Your task to perform on an android device: set the timer Image 0: 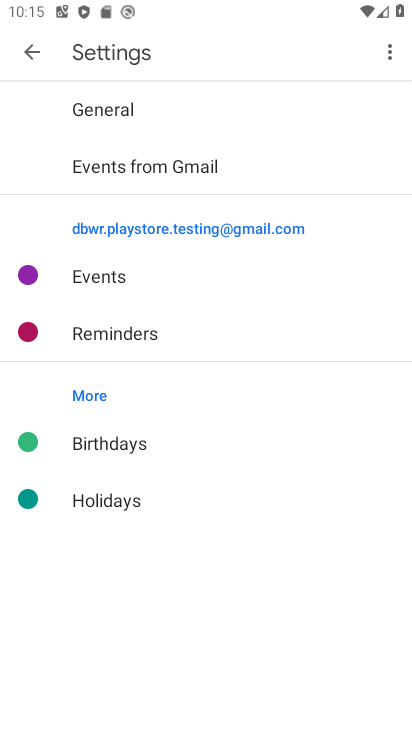
Step 0: drag from (242, 505) to (305, 179)
Your task to perform on an android device: set the timer Image 1: 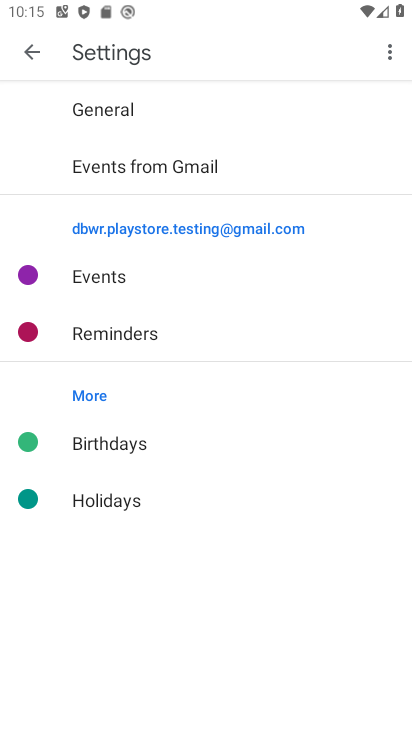
Step 1: drag from (184, 481) to (228, 186)
Your task to perform on an android device: set the timer Image 2: 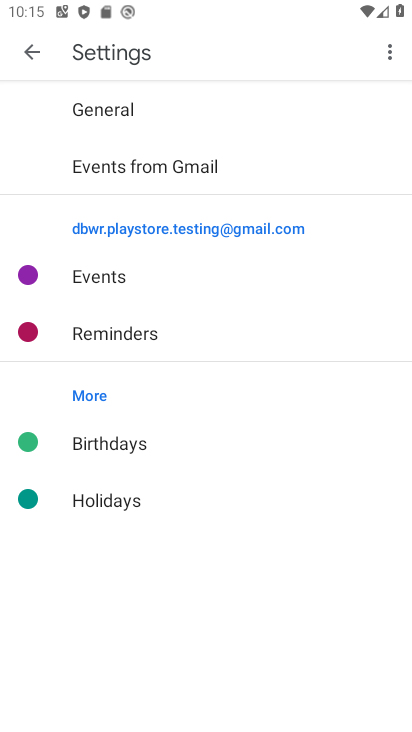
Step 2: press home button
Your task to perform on an android device: set the timer Image 3: 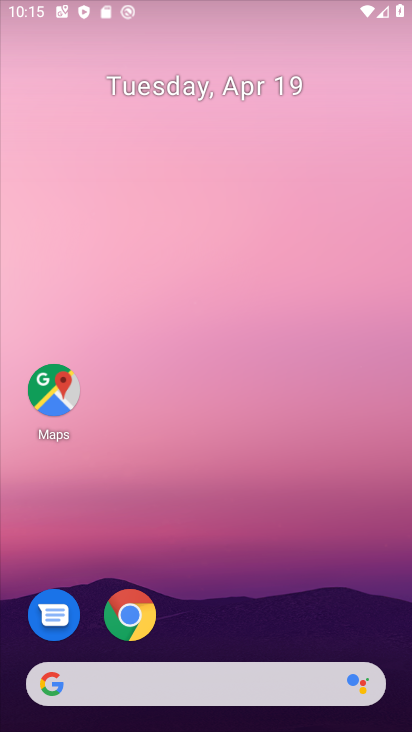
Step 3: drag from (177, 621) to (264, 34)
Your task to perform on an android device: set the timer Image 4: 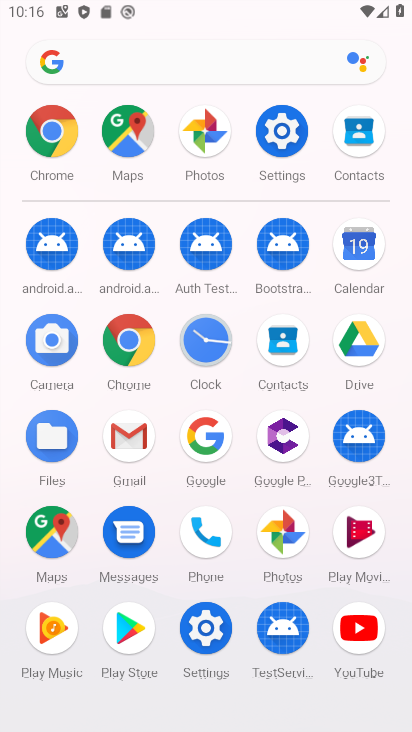
Step 4: click (195, 339)
Your task to perform on an android device: set the timer Image 5: 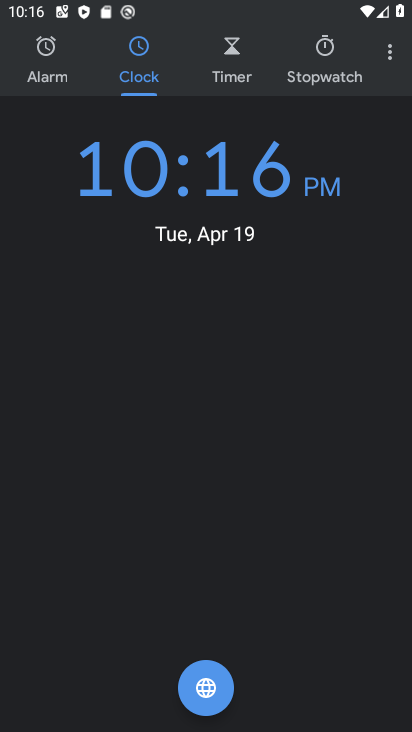
Step 5: click (230, 56)
Your task to perform on an android device: set the timer Image 6: 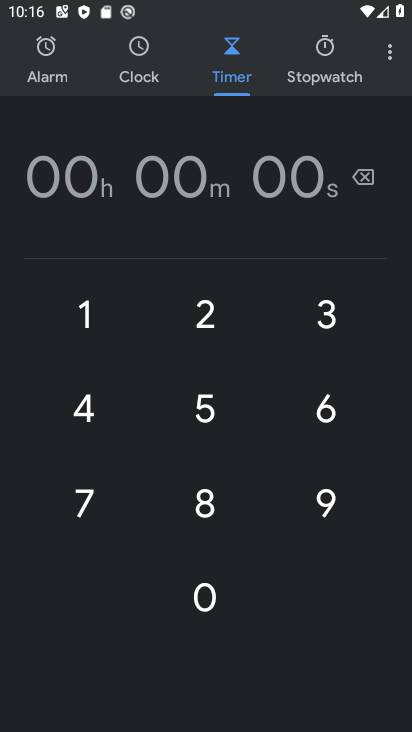
Step 6: click (217, 306)
Your task to perform on an android device: set the timer Image 7: 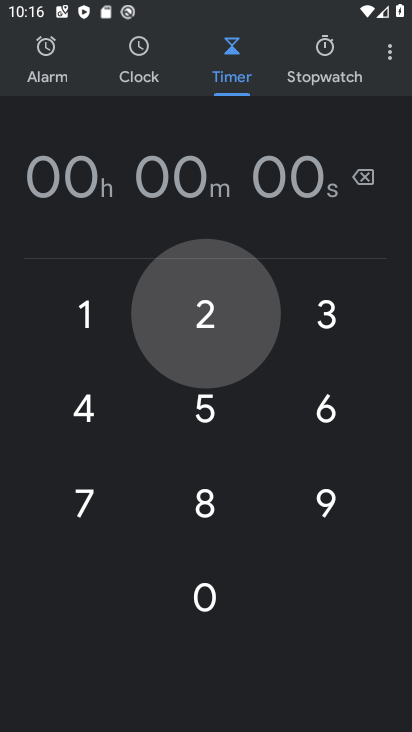
Step 7: click (315, 327)
Your task to perform on an android device: set the timer Image 8: 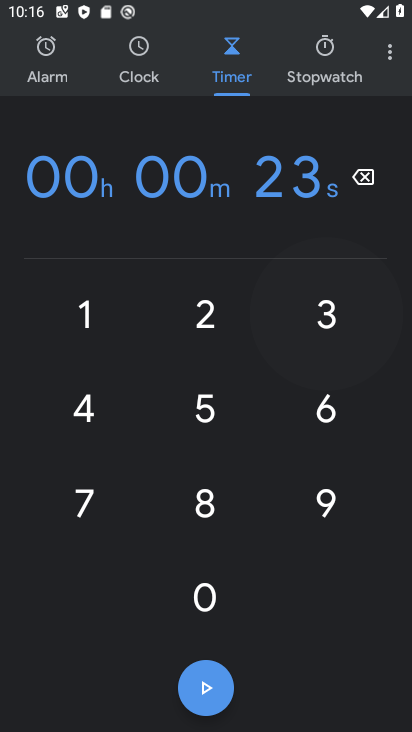
Step 8: click (215, 388)
Your task to perform on an android device: set the timer Image 9: 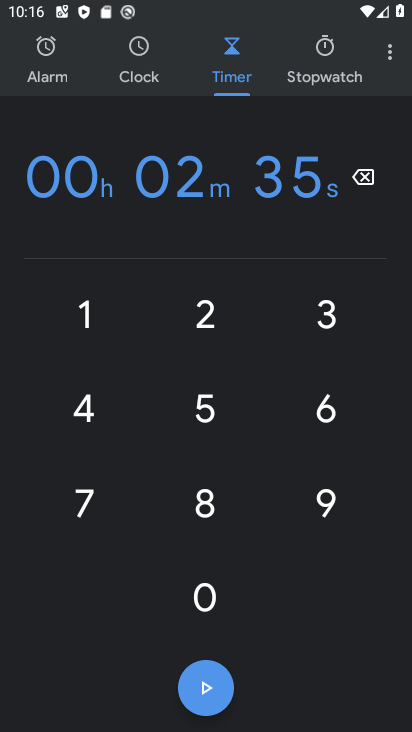
Step 9: click (329, 398)
Your task to perform on an android device: set the timer Image 10: 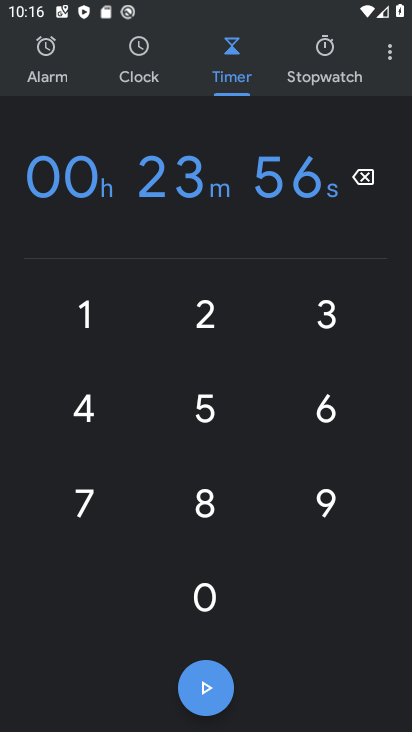
Step 10: drag from (268, 600) to (290, 200)
Your task to perform on an android device: set the timer Image 11: 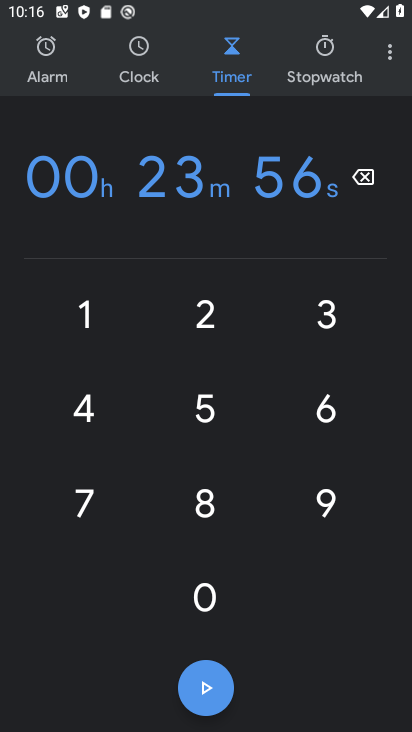
Step 11: click (204, 696)
Your task to perform on an android device: set the timer Image 12: 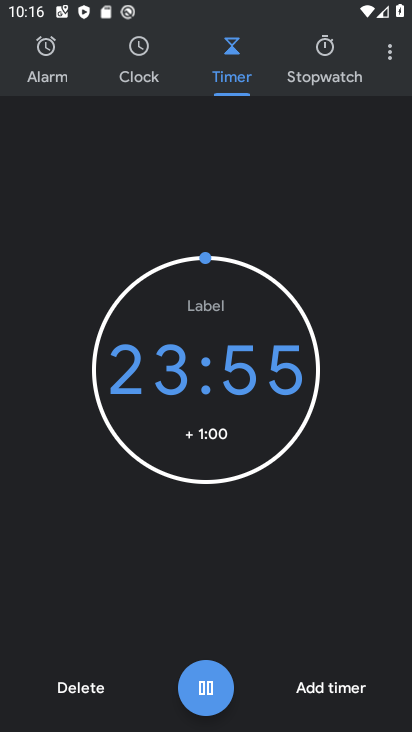
Step 12: task complete